Your task to perform on an android device: make emails show in primary in the gmail app Image 0: 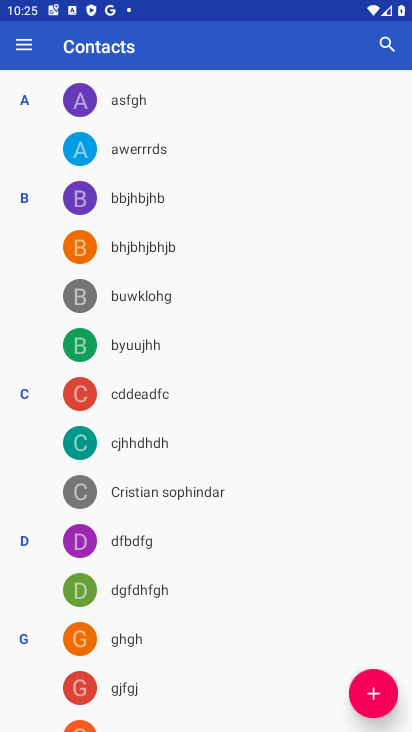
Step 0: press home button
Your task to perform on an android device: make emails show in primary in the gmail app Image 1: 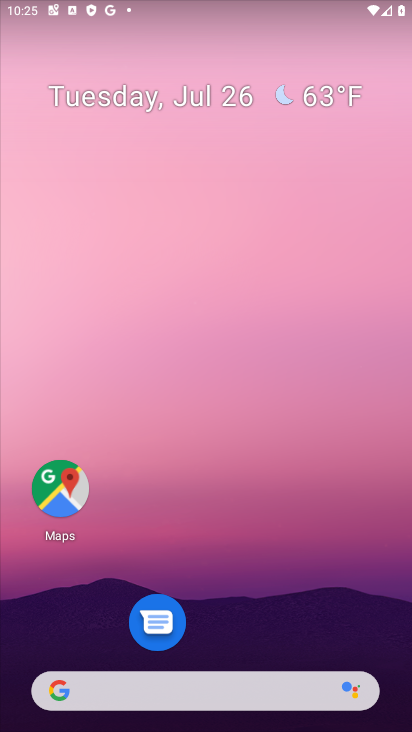
Step 1: drag from (333, 545) to (203, 52)
Your task to perform on an android device: make emails show in primary in the gmail app Image 2: 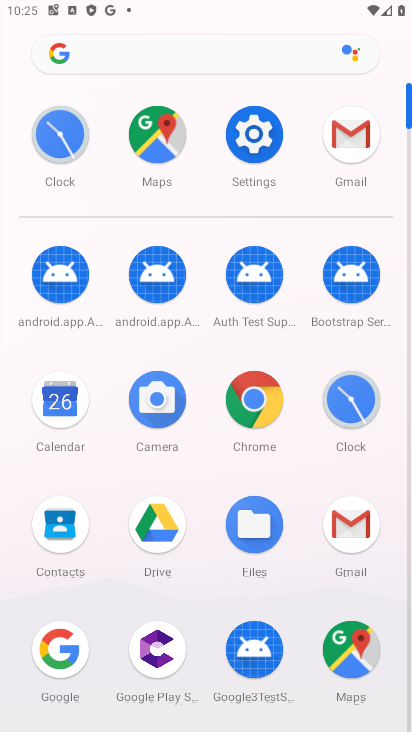
Step 2: click (351, 137)
Your task to perform on an android device: make emails show in primary in the gmail app Image 3: 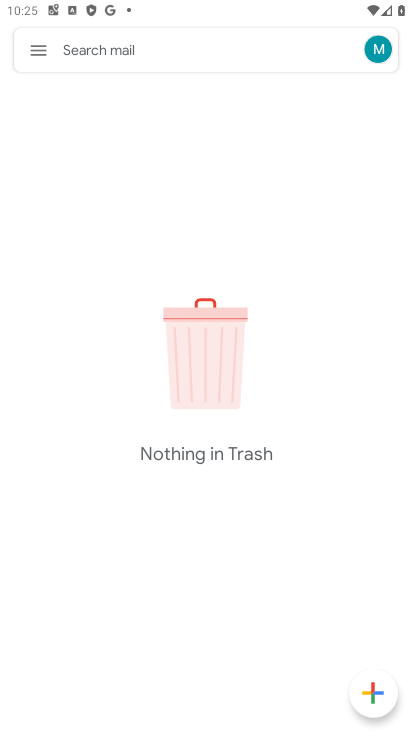
Step 3: click (29, 50)
Your task to perform on an android device: make emails show in primary in the gmail app Image 4: 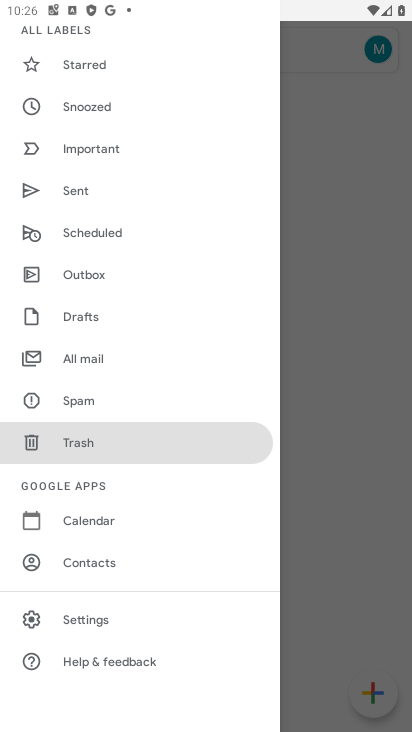
Step 4: click (66, 610)
Your task to perform on an android device: make emails show in primary in the gmail app Image 5: 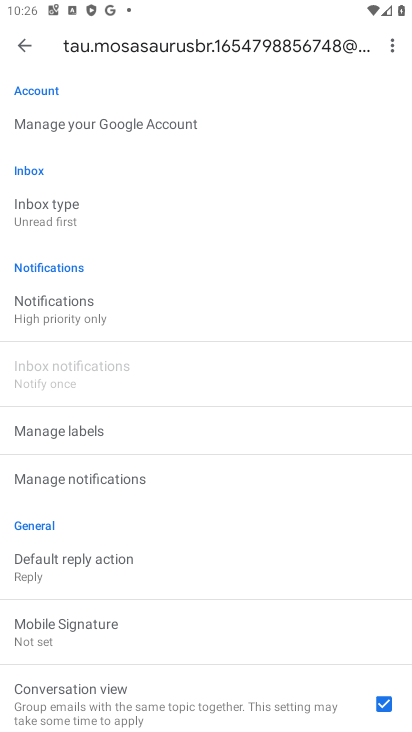
Step 5: click (67, 217)
Your task to perform on an android device: make emails show in primary in the gmail app Image 6: 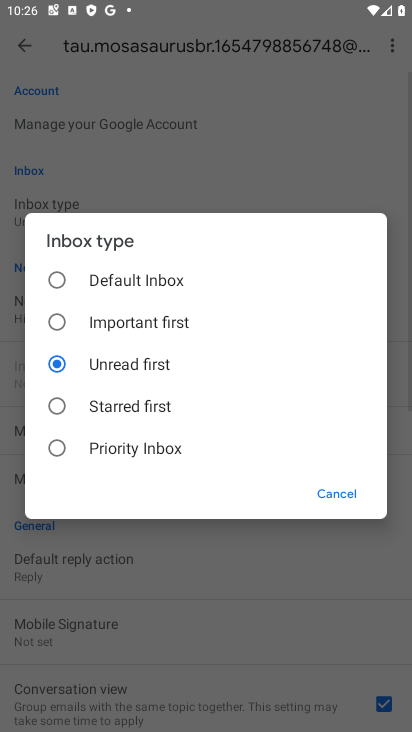
Step 6: click (96, 285)
Your task to perform on an android device: make emails show in primary in the gmail app Image 7: 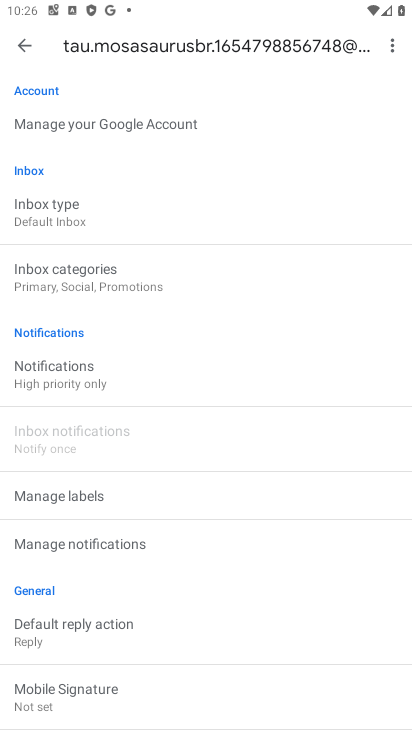
Step 7: task complete